Your task to perform on an android device: change text size in settings app Image 0: 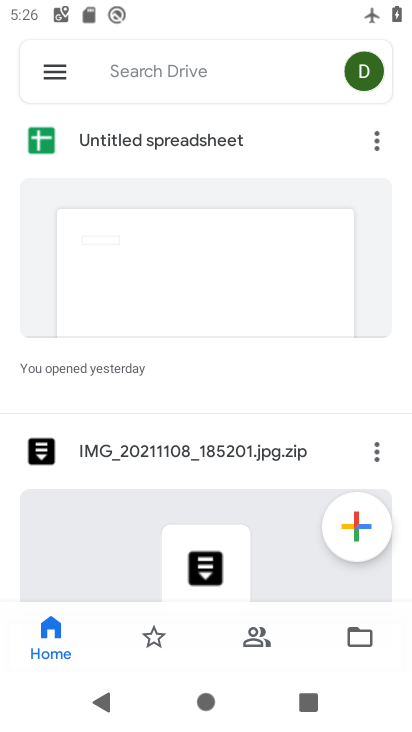
Step 0: press home button
Your task to perform on an android device: change text size in settings app Image 1: 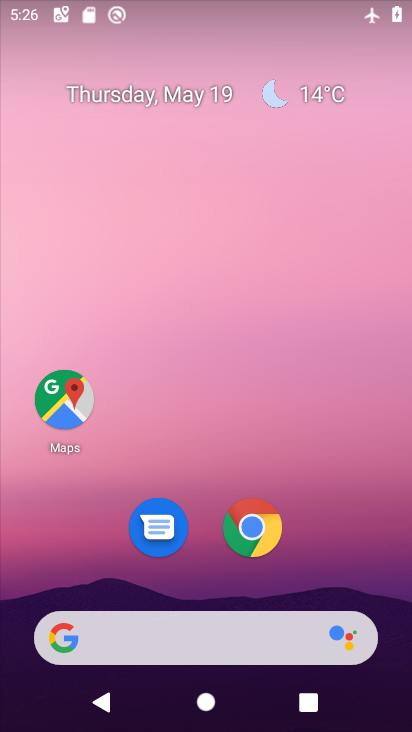
Step 1: drag from (359, 526) to (192, 34)
Your task to perform on an android device: change text size in settings app Image 2: 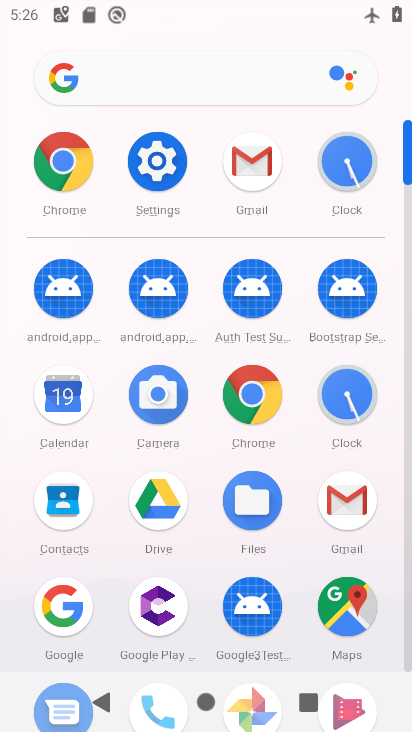
Step 2: click (155, 165)
Your task to perform on an android device: change text size in settings app Image 3: 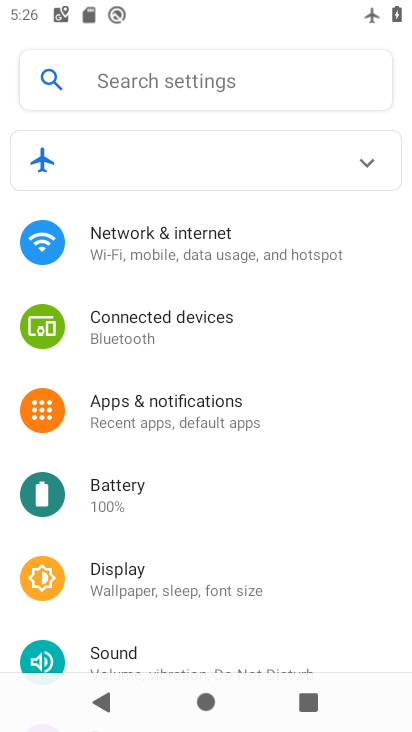
Step 3: click (189, 579)
Your task to perform on an android device: change text size in settings app Image 4: 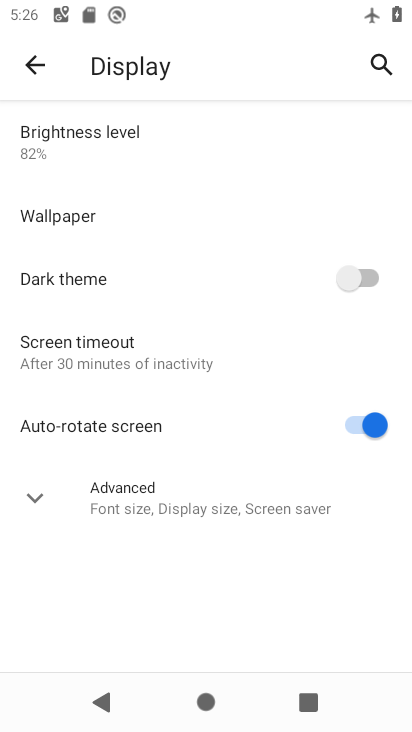
Step 4: click (156, 508)
Your task to perform on an android device: change text size in settings app Image 5: 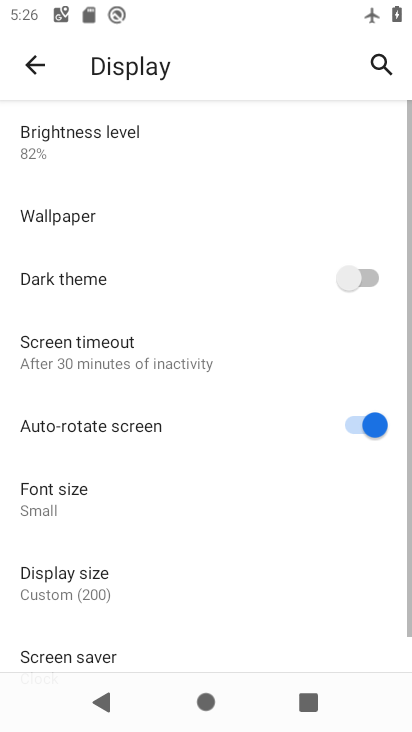
Step 5: click (97, 490)
Your task to perform on an android device: change text size in settings app Image 6: 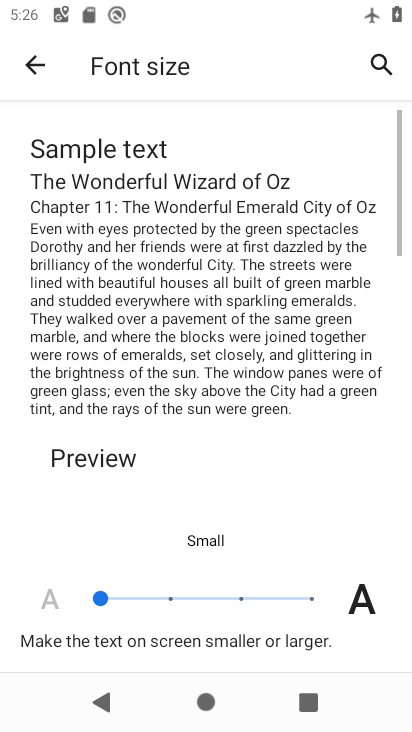
Step 6: click (172, 596)
Your task to perform on an android device: change text size in settings app Image 7: 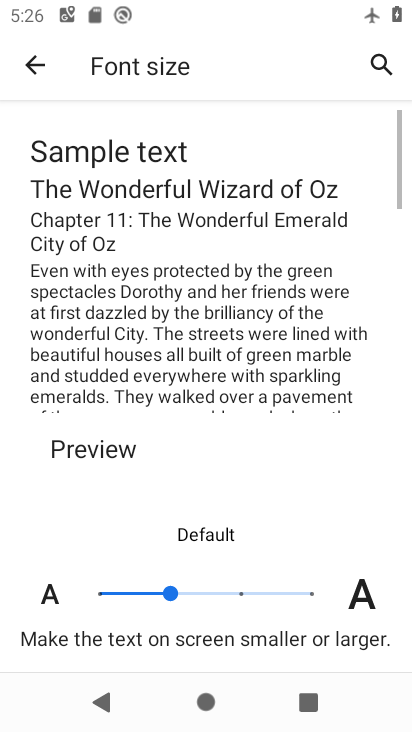
Step 7: task complete